Your task to perform on an android device: open app "Paramount+ | Peak Streaming" (install if not already installed), go to login, and select forgot password Image 0: 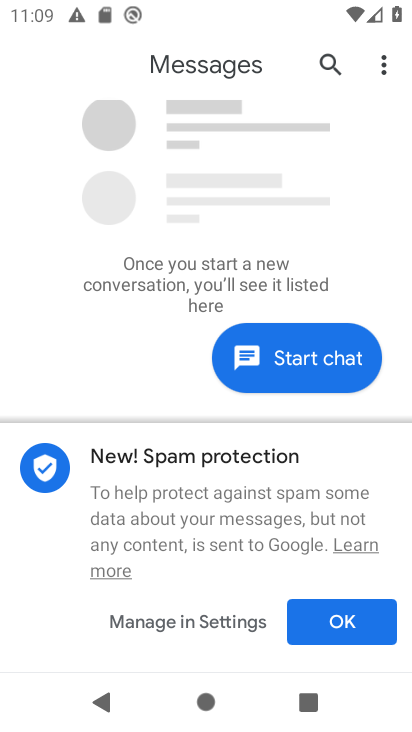
Step 0: press back button
Your task to perform on an android device: open app "Paramount+ | Peak Streaming" (install if not already installed), go to login, and select forgot password Image 1: 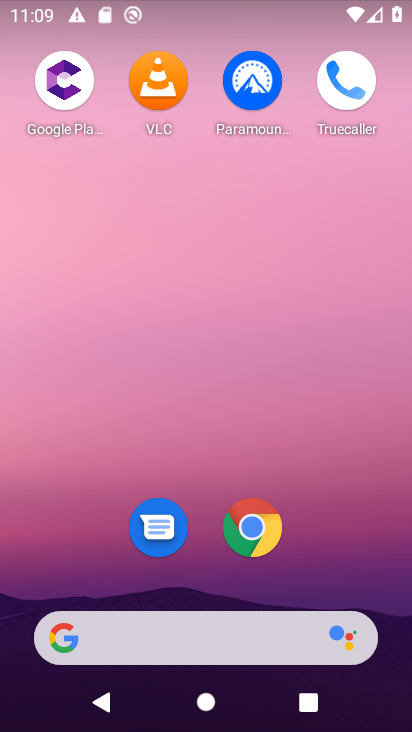
Step 1: drag from (168, 577) to (293, 79)
Your task to perform on an android device: open app "Paramount+ | Peak Streaming" (install if not already installed), go to login, and select forgot password Image 2: 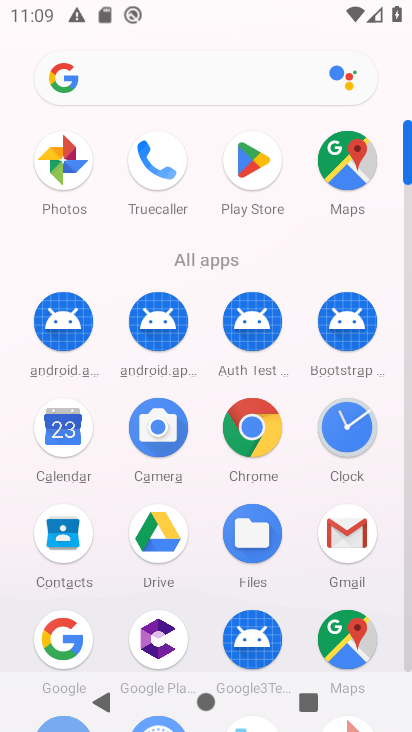
Step 2: click (244, 149)
Your task to perform on an android device: open app "Paramount+ | Peak Streaming" (install if not already installed), go to login, and select forgot password Image 3: 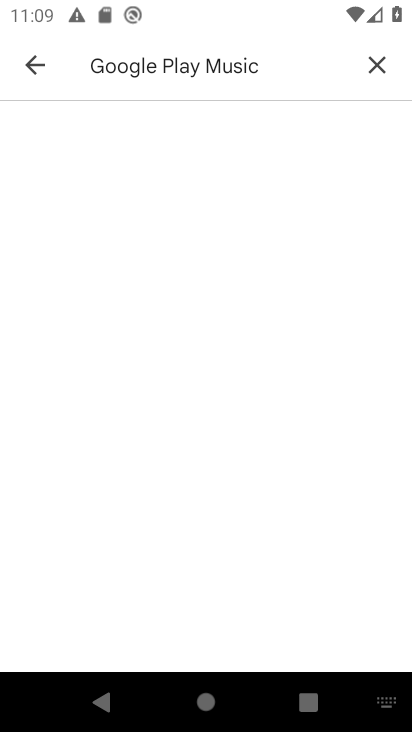
Step 3: click (372, 56)
Your task to perform on an android device: open app "Paramount+ | Peak Streaming" (install if not already installed), go to login, and select forgot password Image 4: 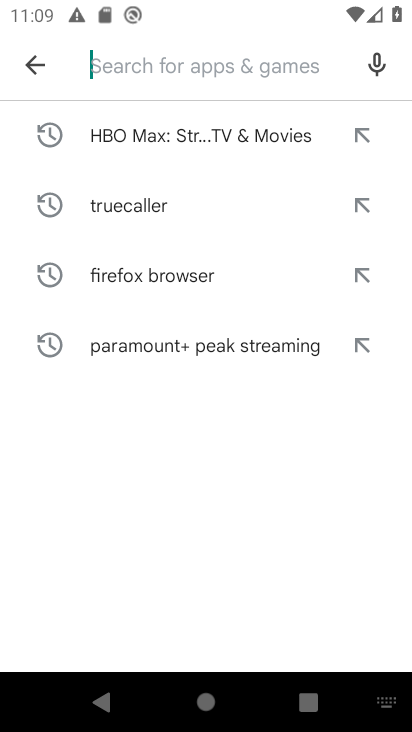
Step 4: click (166, 67)
Your task to perform on an android device: open app "Paramount+ | Peak Streaming" (install if not already installed), go to login, and select forgot password Image 5: 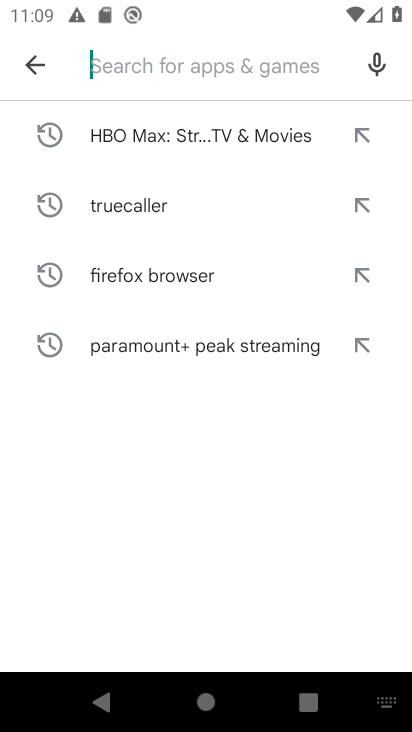
Step 5: type "Paramount+"
Your task to perform on an android device: open app "Paramount+ | Peak Streaming" (install if not already installed), go to login, and select forgot password Image 6: 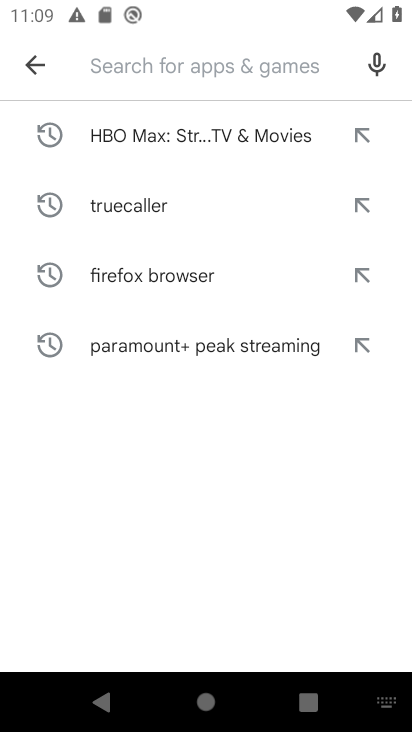
Step 6: click (166, 502)
Your task to perform on an android device: open app "Paramount+ | Peak Streaming" (install if not already installed), go to login, and select forgot password Image 7: 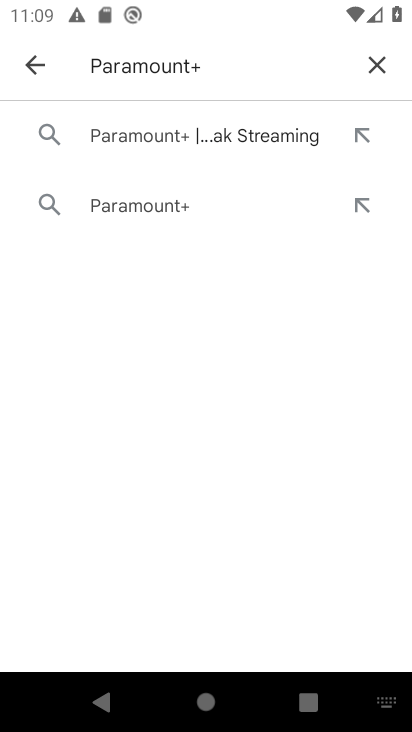
Step 7: click (191, 124)
Your task to perform on an android device: open app "Paramount+ | Peak Streaming" (install if not already installed), go to login, and select forgot password Image 8: 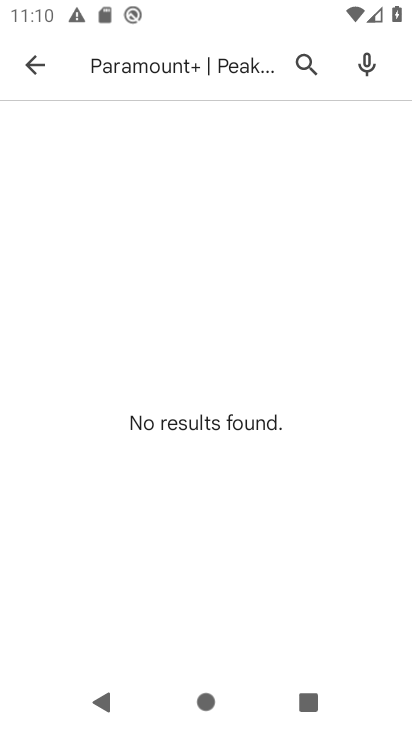
Step 8: task complete